Your task to perform on an android device: toggle wifi Image 0: 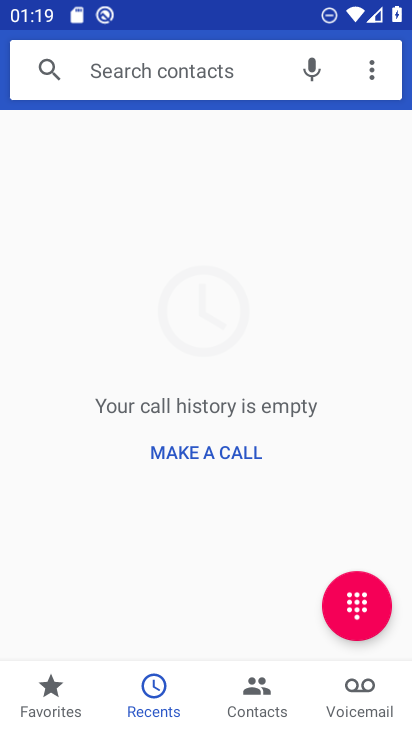
Step 0: press home button
Your task to perform on an android device: toggle wifi Image 1: 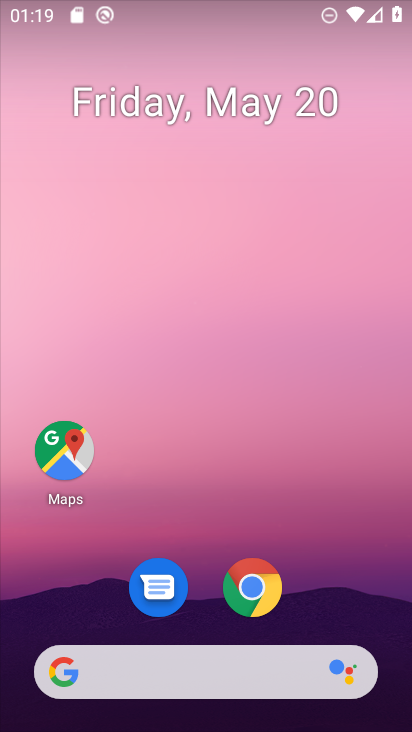
Step 1: drag from (346, 524) to (352, 110)
Your task to perform on an android device: toggle wifi Image 2: 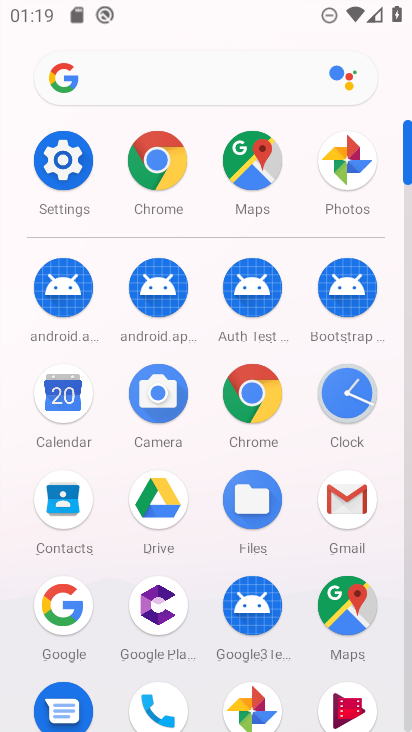
Step 2: click (77, 208)
Your task to perform on an android device: toggle wifi Image 3: 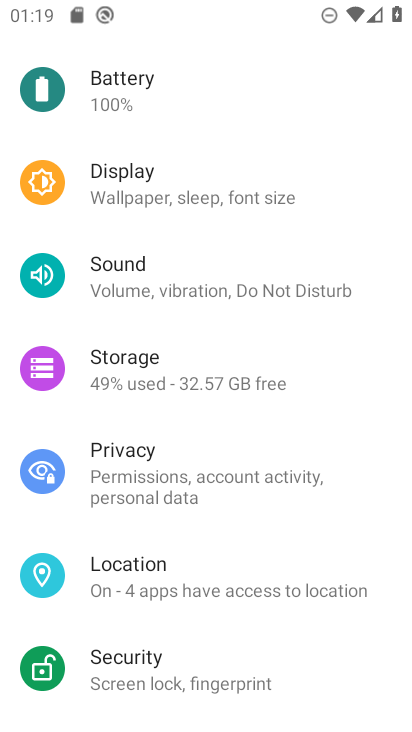
Step 3: drag from (377, 231) to (392, 309)
Your task to perform on an android device: toggle wifi Image 4: 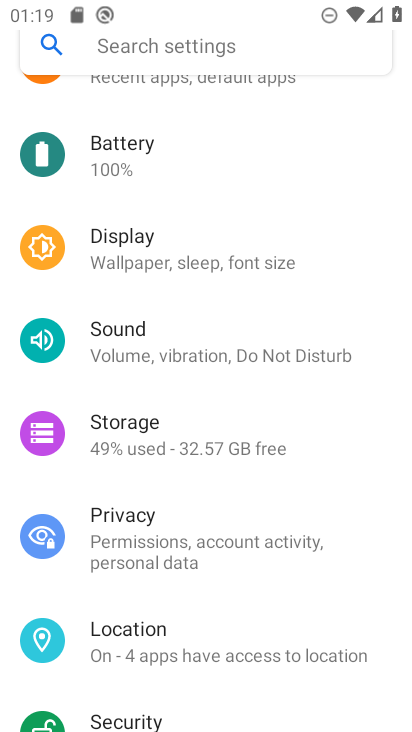
Step 4: drag from (383, 225) to (383, 322)
Your task to perform on an android device: toggle wifi Image 5: 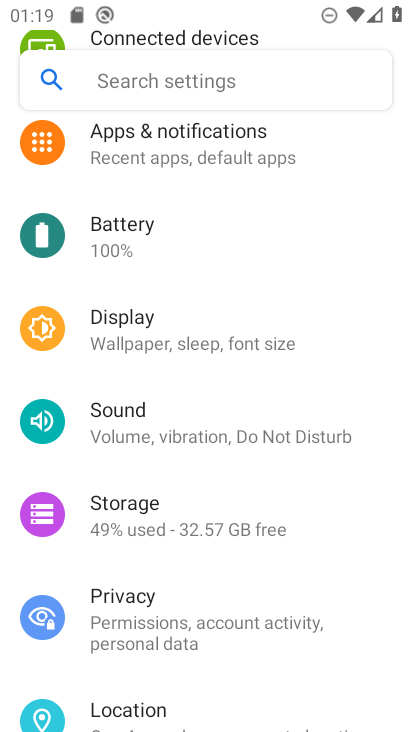
Step 5: drag from (386, 290) to (394, 352)
Your task to perform on an android device: toggle wifi Image 6: 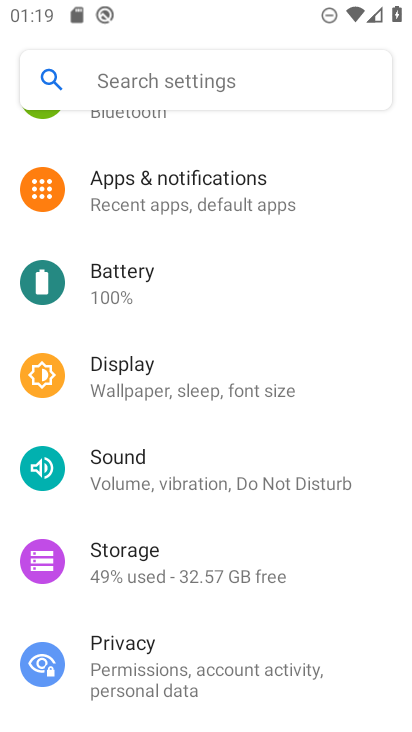
Step 6: drag from (395, 286) to (411, 376)
Your task to perform on an android device: toggle wifi Image 7: 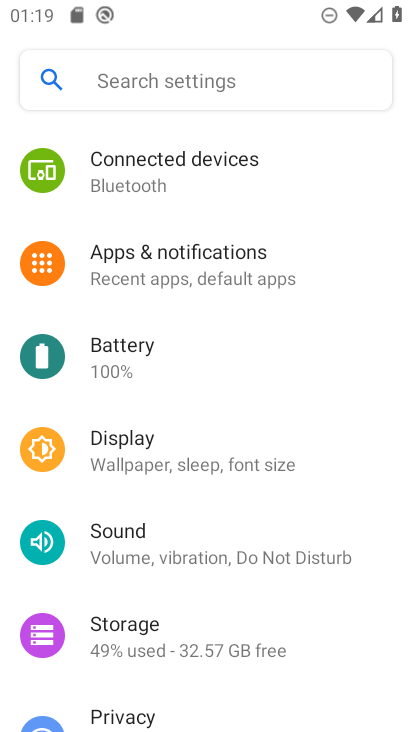
Step 7: drag from (295, 228) to (320, 349)
Your task to perform on an android device: toggle wifi Image 8: 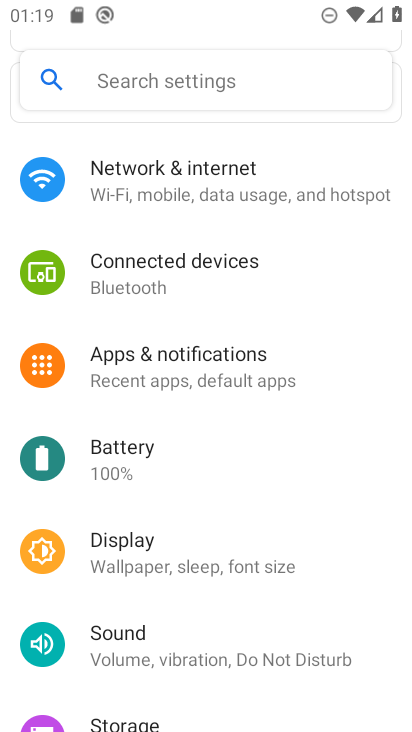
Step 8: drag from (321, 324) to (331, 377)
Your task to perform on an android device: toggle wifi Image 9: 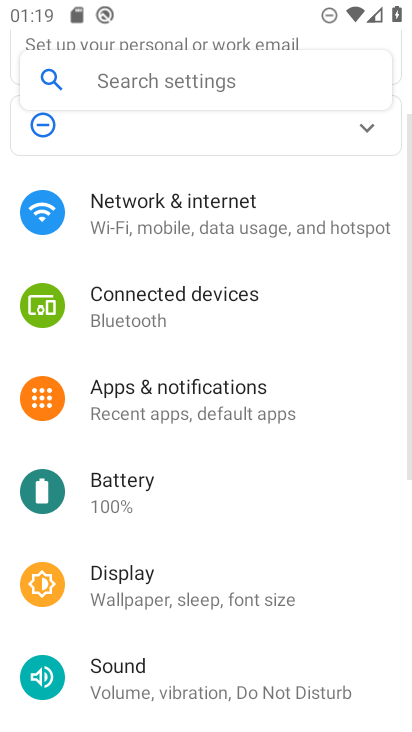
Step 9: drag from (333, 334) to (336, 401)
Your task to perform on an android device: toggle wifi Image 10: 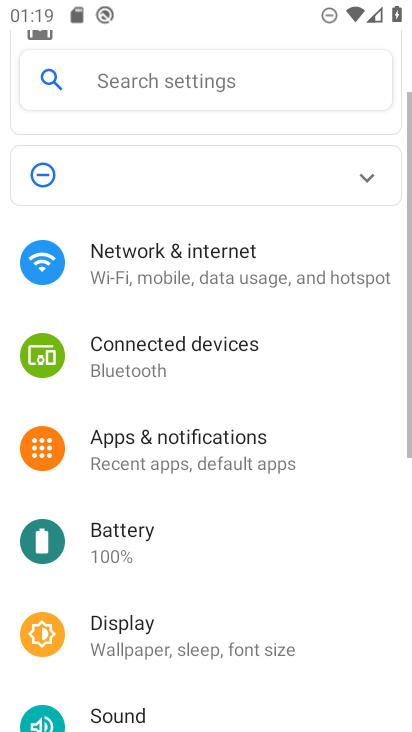
Step 10: drag from (340, 376) to (344, 417)
Your task to perform on an android device: toggle wifi Image 11: 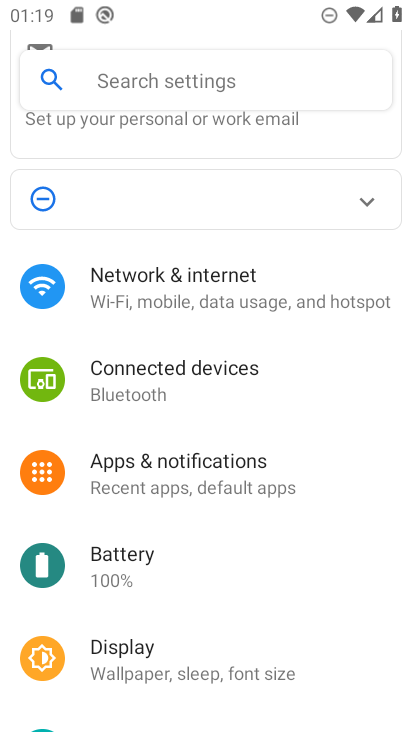
Step 11: click (329, 304)
Your task to perform on an android device: toggle wifi Image 12: 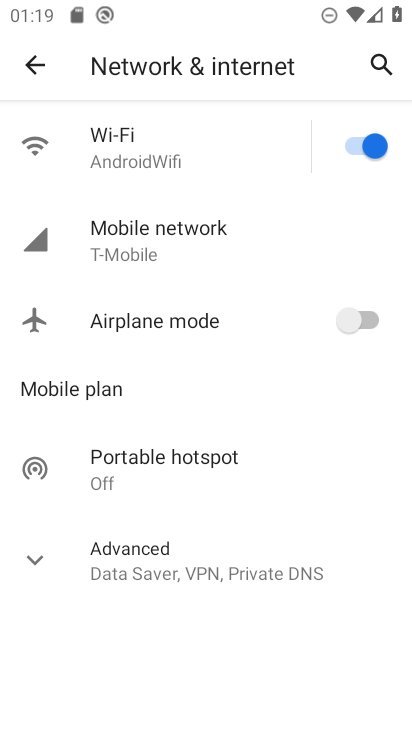
Step 12: click (382, 157)
Your task to perform on an android device: toggle wifi Image 13: 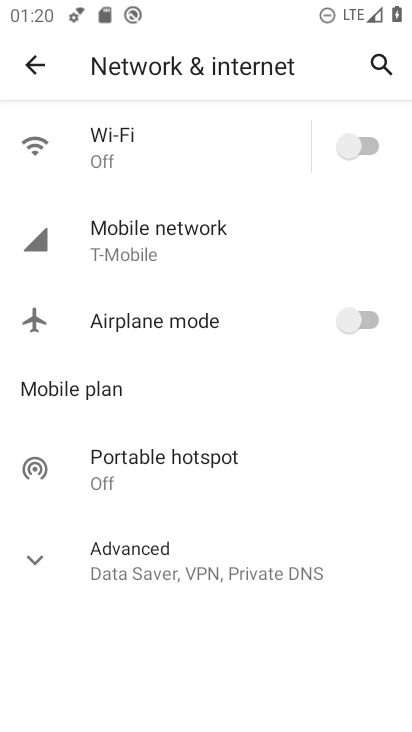
Step 13: task complete